Your task to perform on an android device: check google app version Image 0: 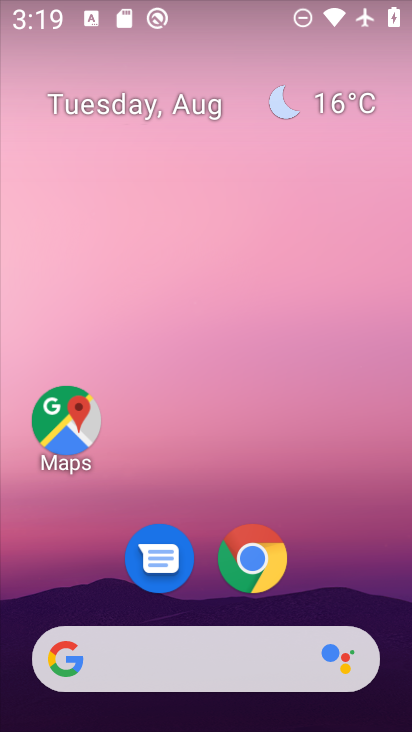
Step 0: drag from (203, 448) to (216, 88)
Your task to perform on an android device: check google app version Image 1: 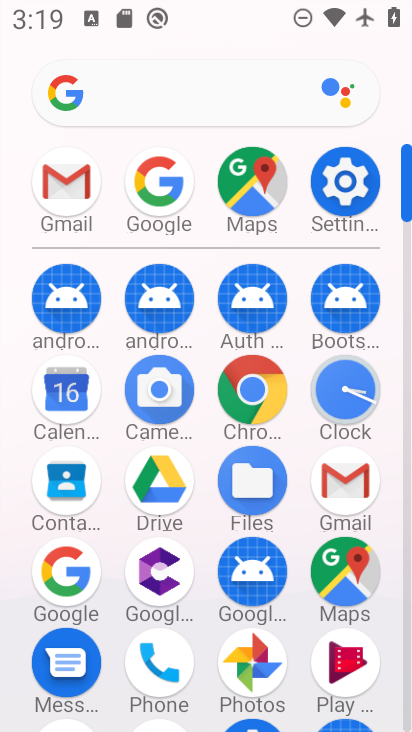
Step 1: click (145, 176)
Your task to perform on an android device: check google app version Image 2: 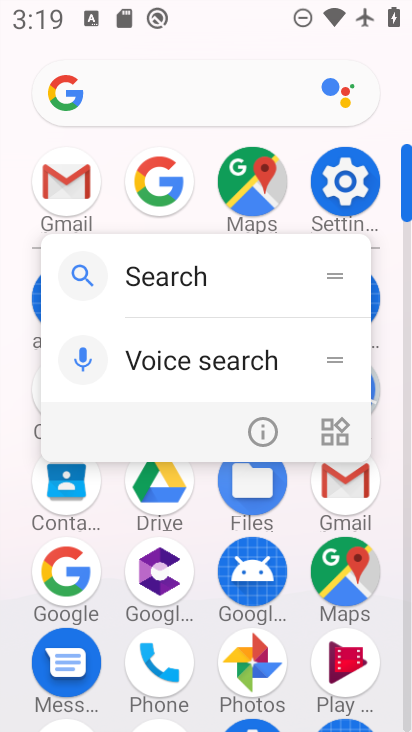
Step 2: click (153, 183)
Your task to perform on an android device: check google app version Image 3: 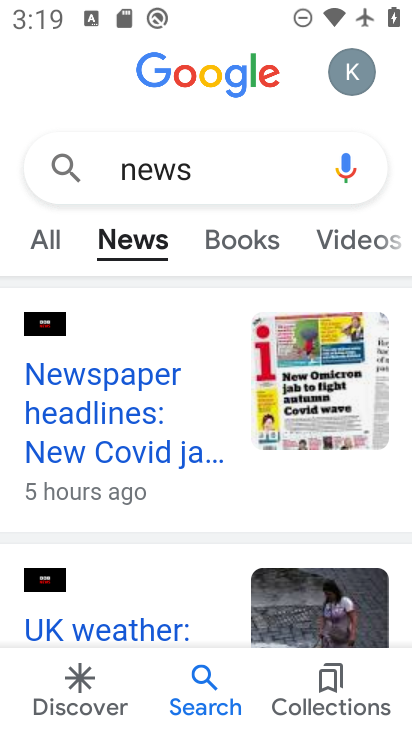
Step 3: click (358, 71)
Your task to perform on an android device: check google app version Image 4: 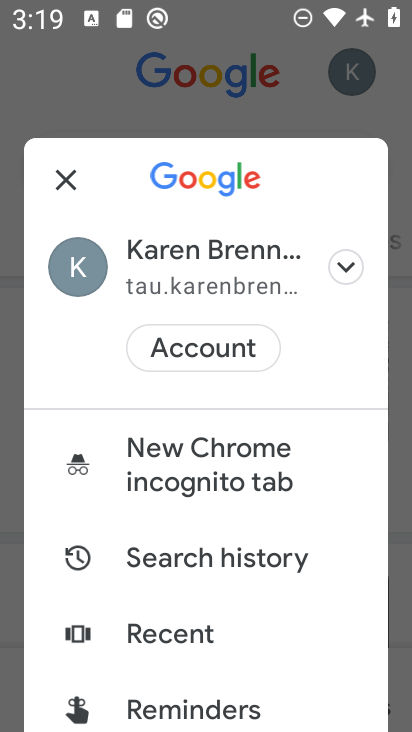
Step 4: drag from (212, 453) to (194, 216)
Your task to perform on an android device: check google app version Image 5: 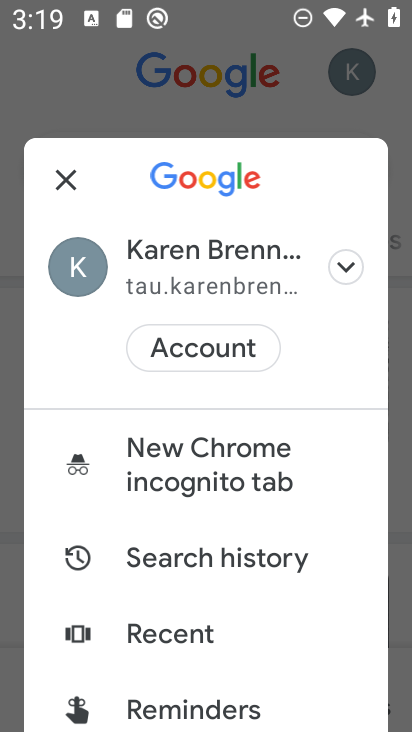
Step 5: drag from (196, 583) to (185, 255)
Your task to perform on an android device: check google app version Image 6: 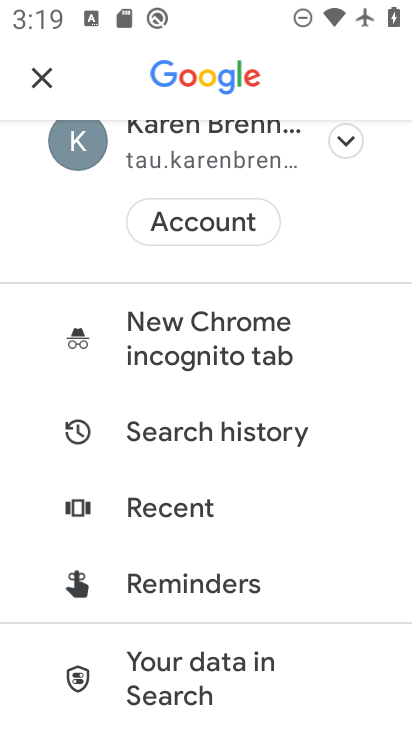
Step 6: drag from (191, 392) to (202, 164)
Your task to perform on an android device: check google app version Image 7: 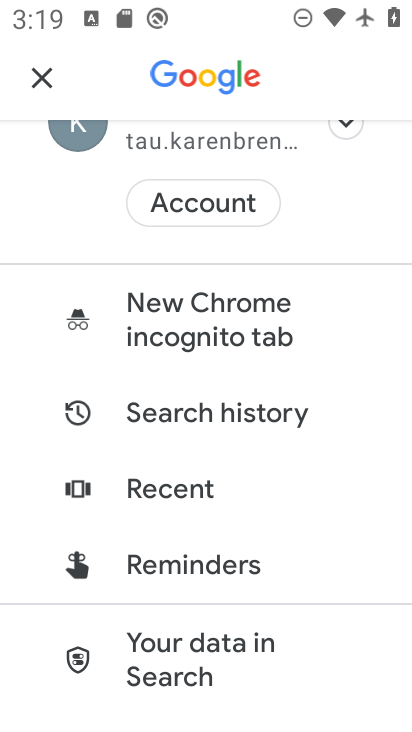
Step 7: drag from (163, 696) to (179, 377)
Your task to perform on an android device: check google app version Image 8: 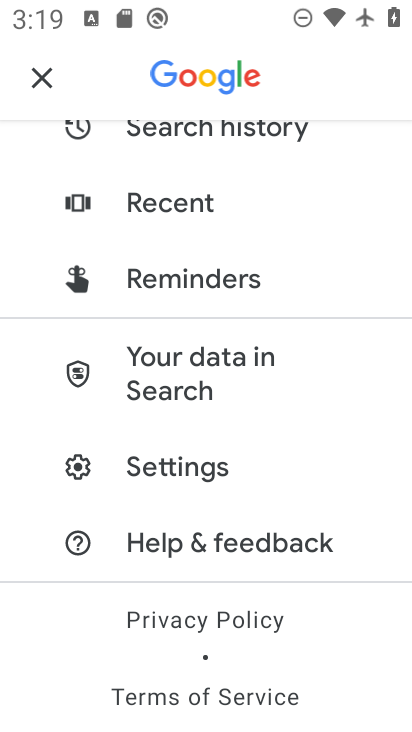
Step 8: click (147, 469)
Your task to perform on an android device: check google app version Image 9: 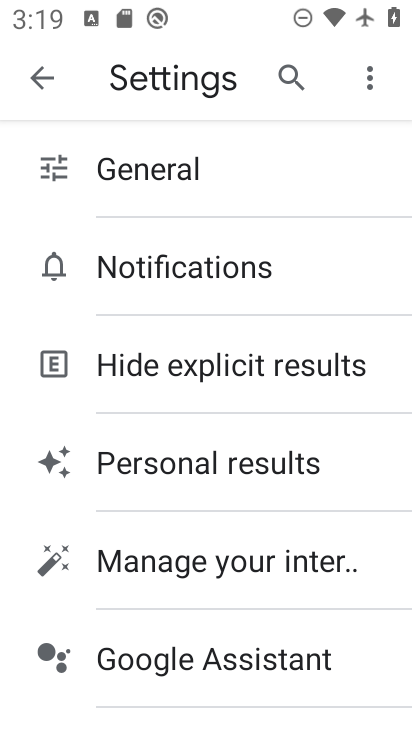
Step 9: drag from (190, 605) to (229, 131)
Your task to perform on an android device: check google app version Image 10: 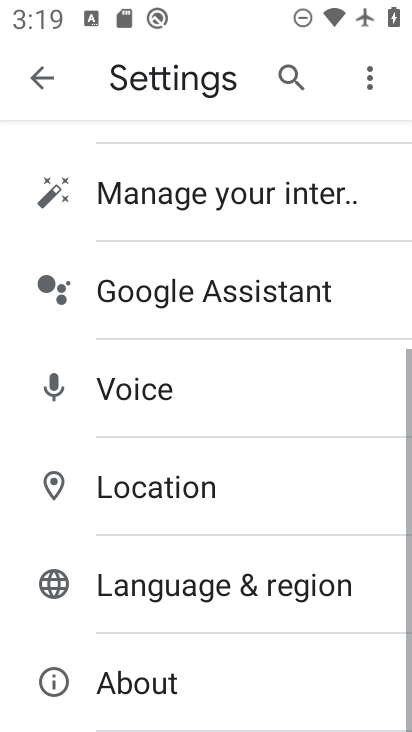
Step 10: click (185, 669)
Your task to perform on an android device: check google app version Image 11: 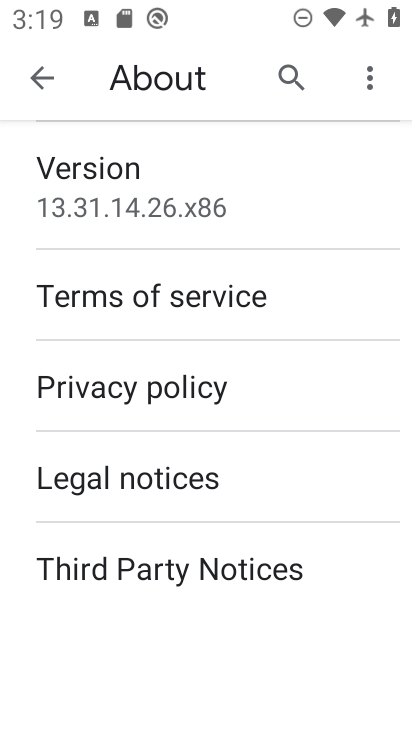
Step 11: click (147, 215)
Your task to perform on an android device: check google app version Image 12: 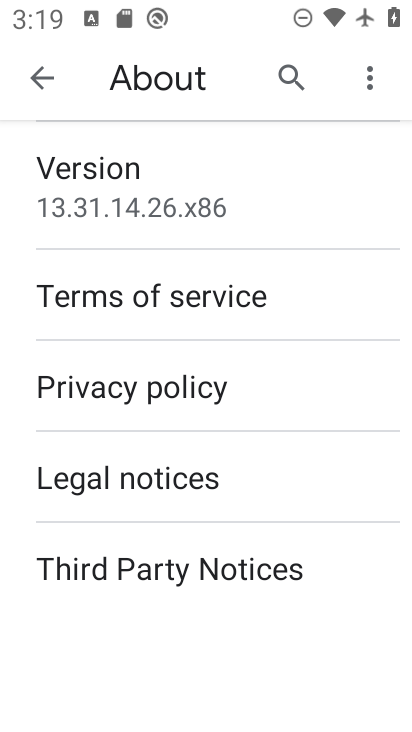
Step 12: click (214, 171)
Your task to perform on an android device: check google app version Image 13: 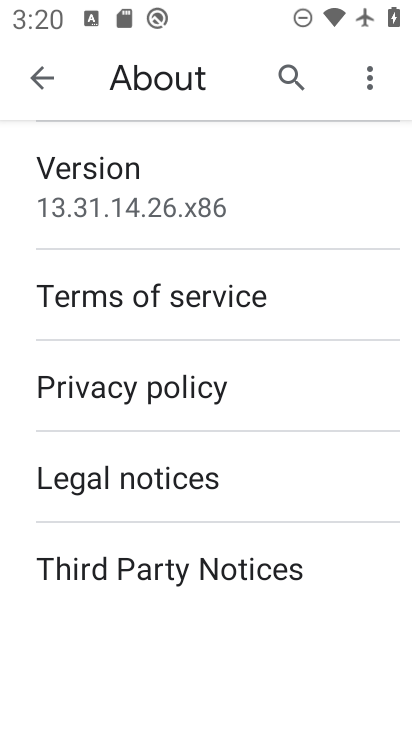
Step 13: click (179, 186)
Your task to perform on an android device: check google app version Image 14: 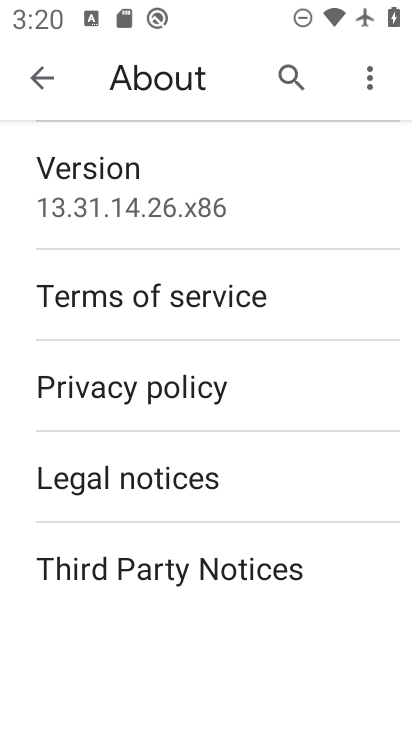
Step 14: task complete